Your task to perform on an android device: find photos in the google photos app Image 0: 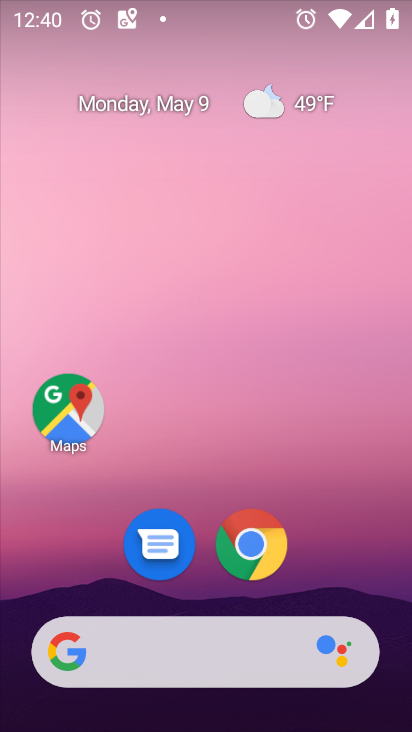
Step 0: drag from (209, 623) to (175, 247)
Your task to perform on an android device: find photos in the google photos app Image 1: 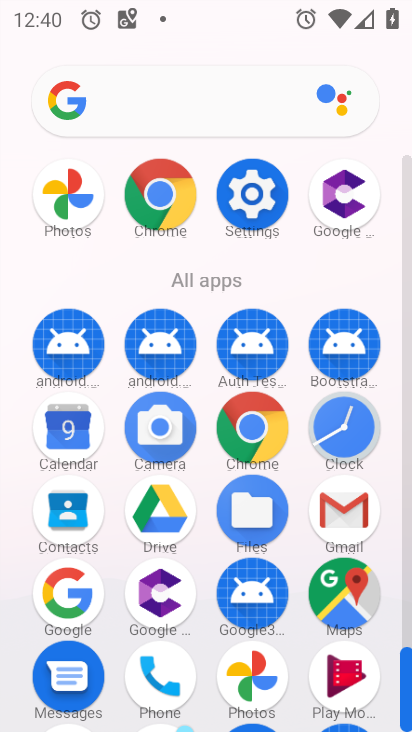
Step 1: click (267, 656)
Your task to perform on an android device: find photos in the google photos app Image 2: 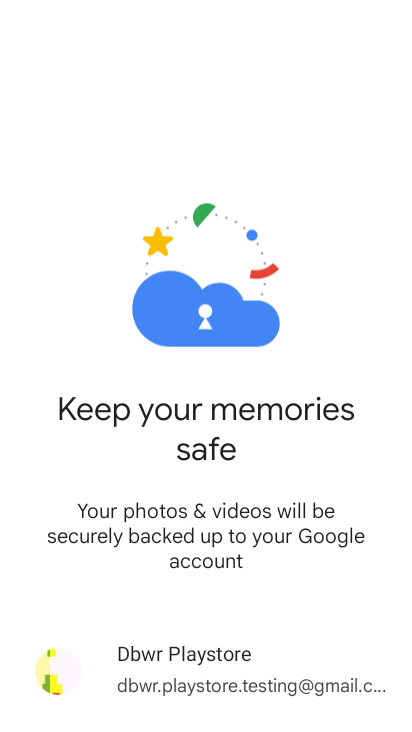
Step 2: drag from (267, 656) to (322, 225)
Your task to perform on an android device: find photos in the google photos app Image 3: 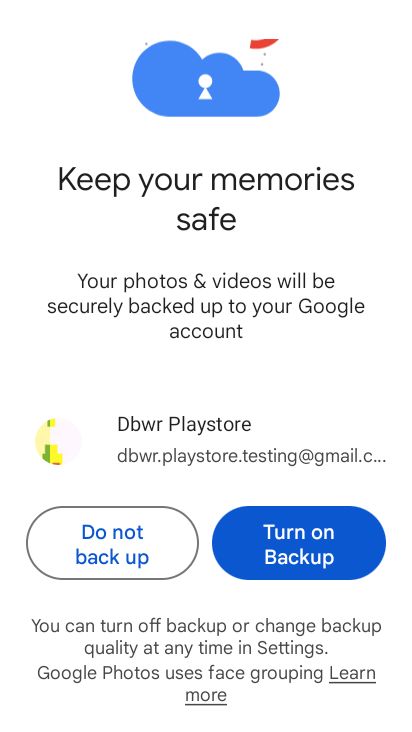
Step 3: click (154, 534)
Your task to perform on an android device: find photos in the google photos app Image 4: 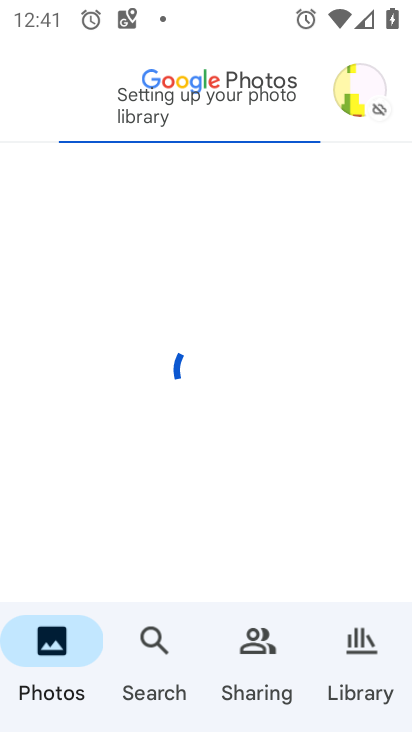
Step 4: task complete